Your task to perform on an android device: Go to Wikipedia Image 0: 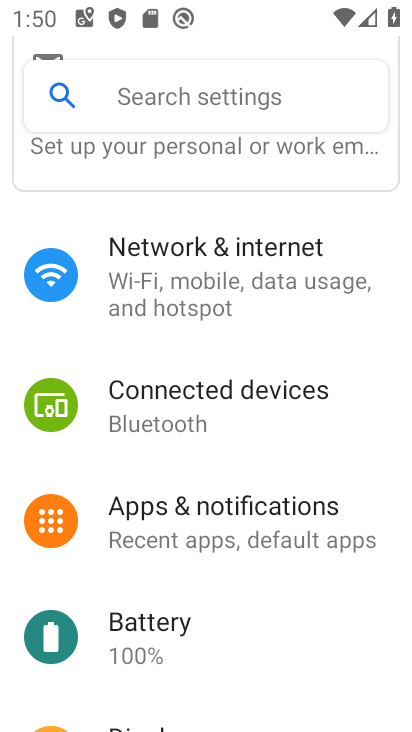
Step 0: press back button
Your task to perform on an android device: Go to Wikipedia Image 1: 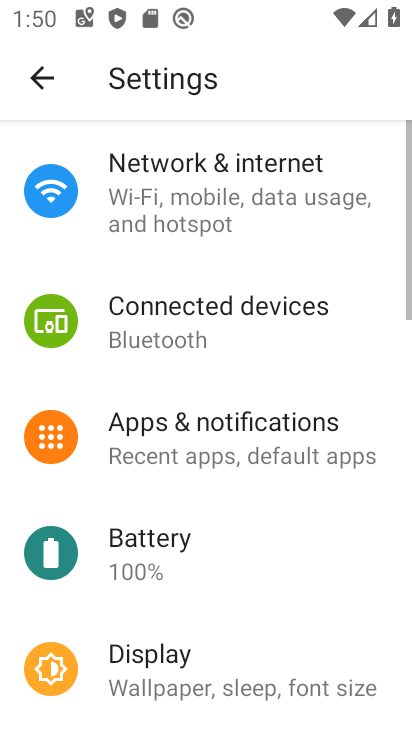
Step 1: press back button
Your task to perform on an android device: Go to Wikipedia Image 2: 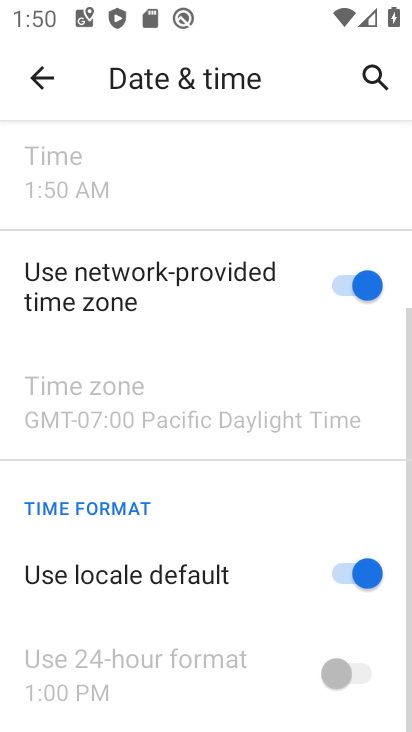
Step 2: press back button
Your task to perform on an android device: Go to Wikipedia Image 3: 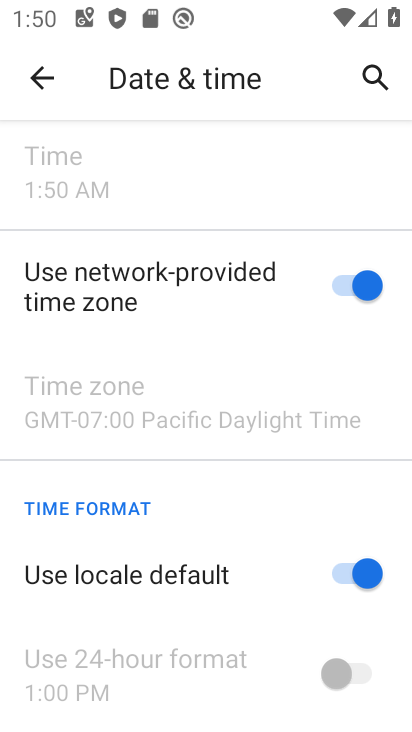
Step 3: press home button
Your task to perform on an android device: Go to Wikipedia Image 4: 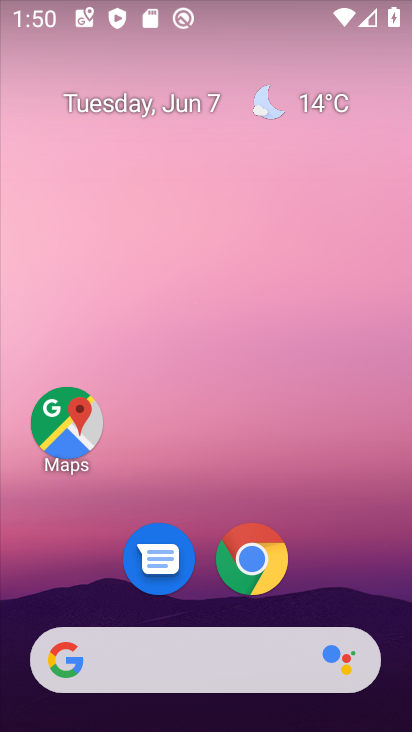
Step 4: drag from (338, 571) to (238, 124)
Your task to perform on an android device: Go to Wikipedia Image 5: 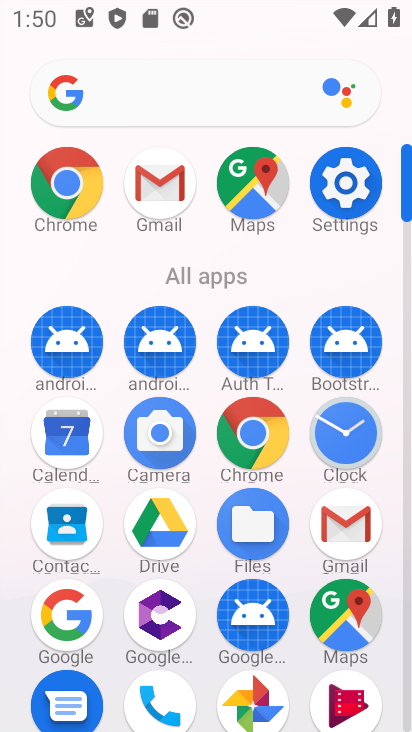
Step 5: click (253, 427)
Your task to perform on an android device: Go to Wikipedia Image 6: 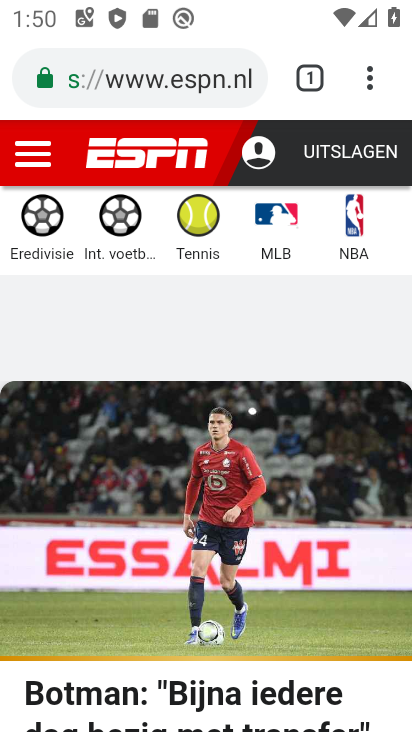
Step 6: click (192, 77)
Your task to perform on an android device: Go to Wikipedia Image 7: 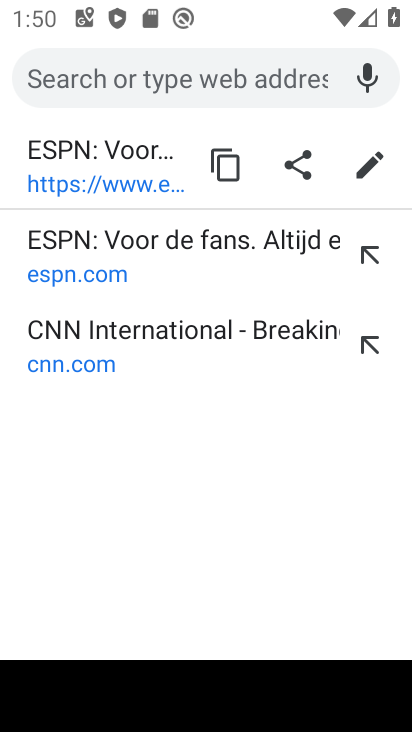
Step 7: type " Wikipedia"
Your task to perform on an android device: Go to Wikipedia Image 8: 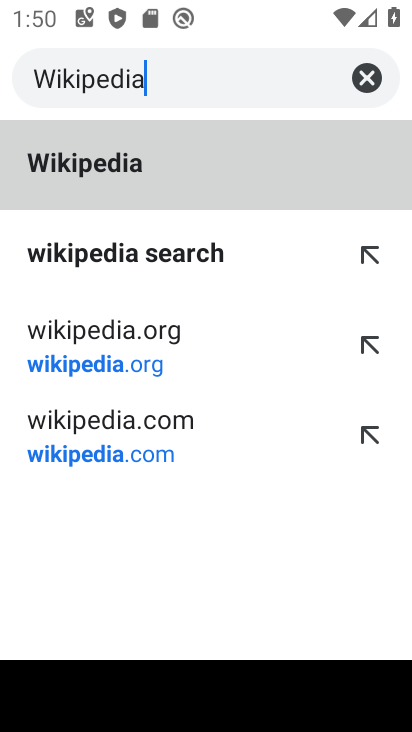
Step 8: type ""
Your task to perform on an android device: Go to Wikipedia Image 9: 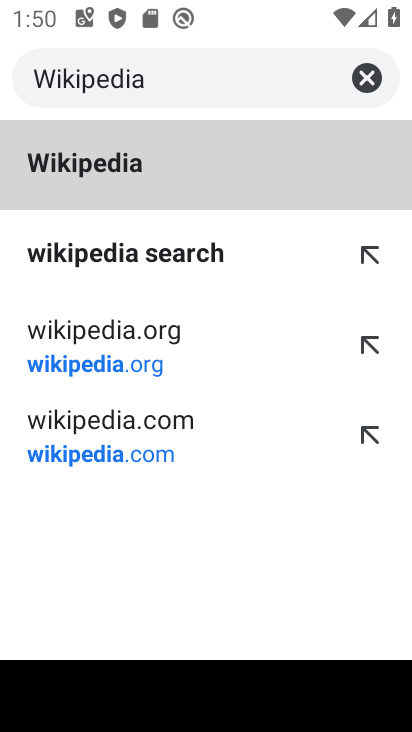
Step 9: click (128, 338)
Your task to perform on an android device: Go to Wikipedia Image 10: 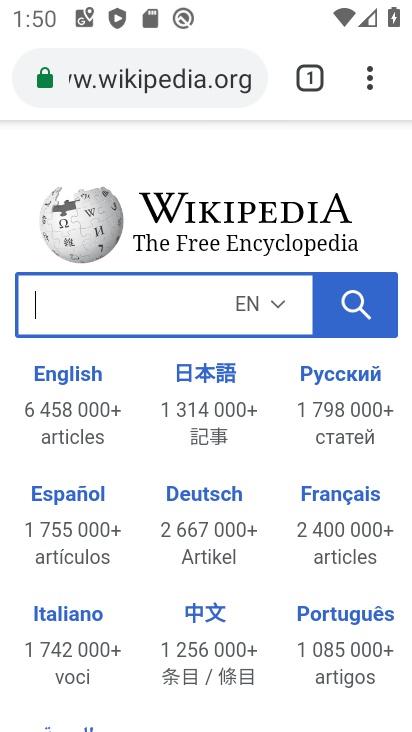
Step 10: task complete